Your task to perform on an android device: manage bookmarks in the chrome app Image 0: 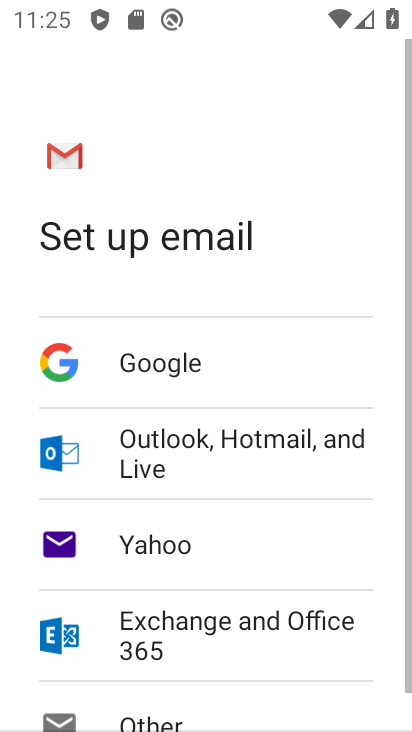
Step 0: press back button
Your task to perform on an android device: manage bookmarks in the chrome app Image 1: 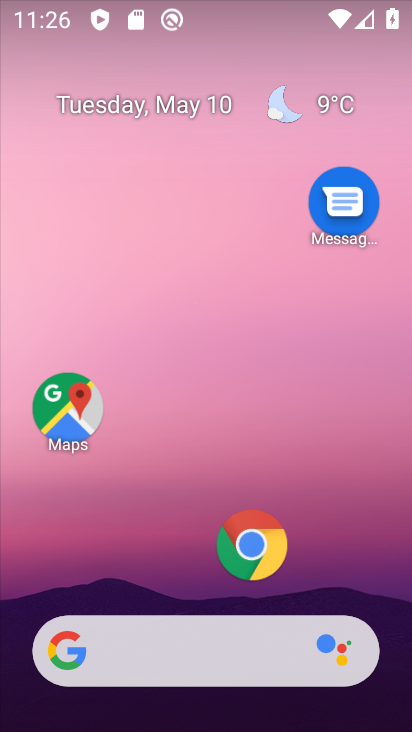
Step 1: click (237, 538)
Your task to perform on an android device: manage bookmarks in the chrome app Image 2: 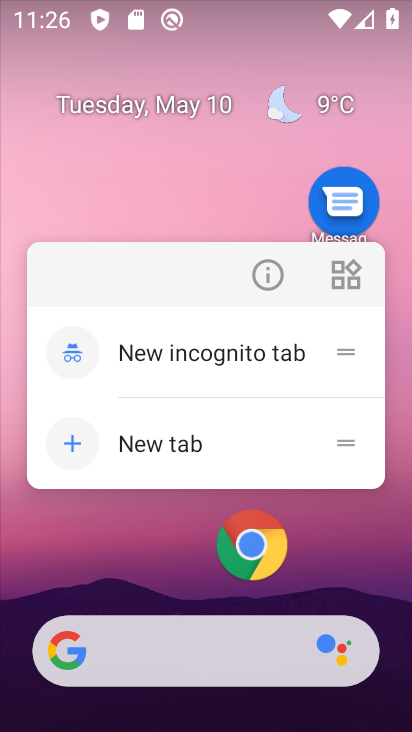
Step 2: click (243, 528)
Your task to perform on an android device: manage bookmarks in the chrome app Image 3: 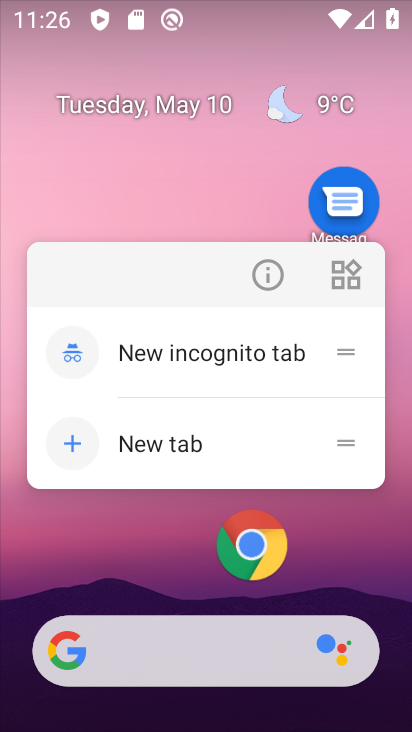
Step 3: click (251, 546)
Your task to perform on an android device: manage bookmarks in the chrome app Image 4: 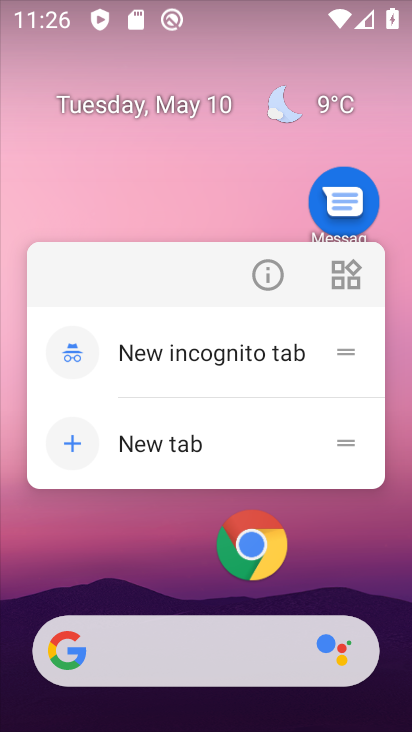
Step 4: click (254, 549)
Your task to perform on an android device: manage bookmarks in the chrome app Image 5: 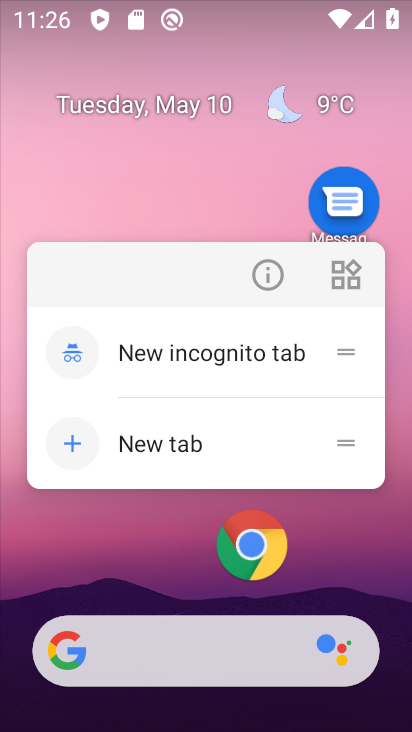
Step 5: click (264, 557)
Your task to perform on an android device: manage bookmarks in the chrome app Image 6: 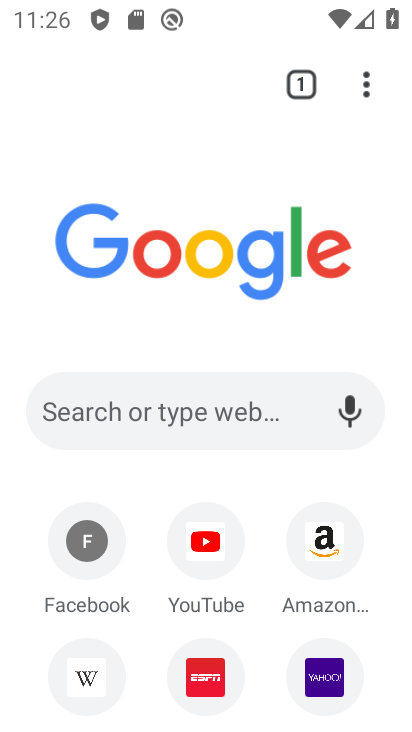
Step 6: task complete